Your task to perform on an android device: move a message to another label in the gmail app Image 0: 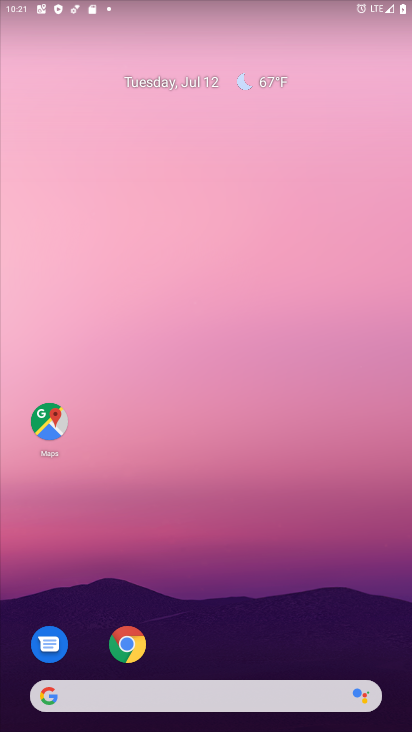
Step 0: drag from (170, 426) to (257, 89)
Your task to perform on an android device: move a message to another label in the gmail app Image 1: 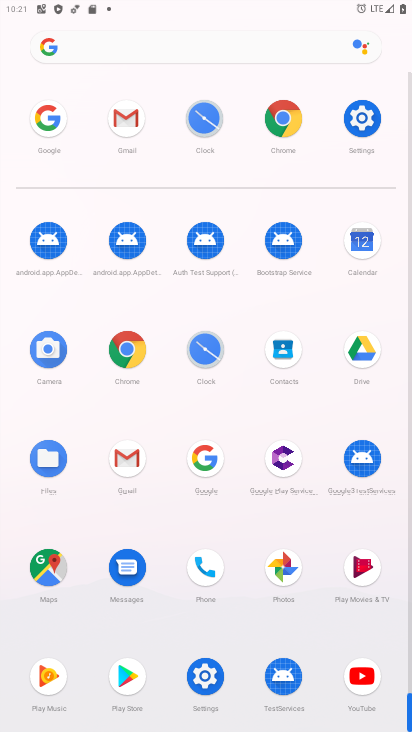
Step 1: click (118, 463)
Your task to perform on an android device: move a message to another label in the gmail app Image 2: 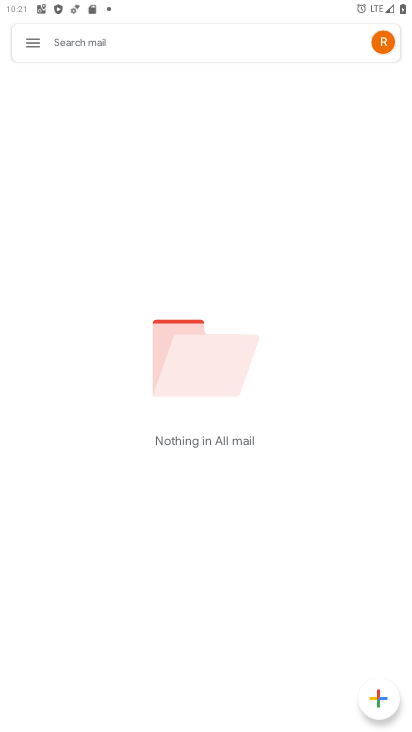
Step 2: task complete